Your task to perform on an android device: all mails in gmail Image 0: 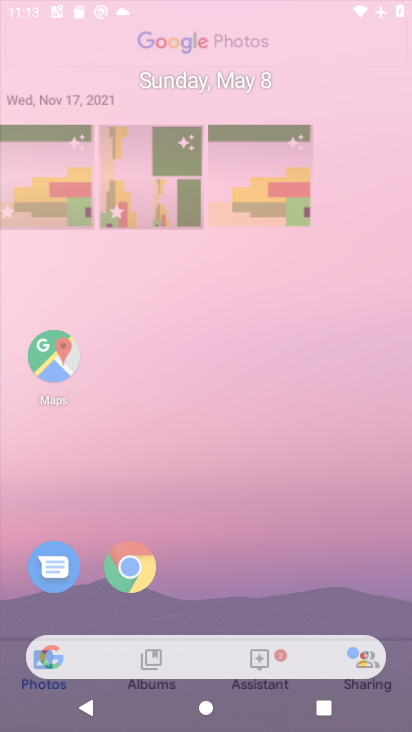
Step 0: click (396, 105)
Your task to perform on an android device: all mails in gmail Image 1: 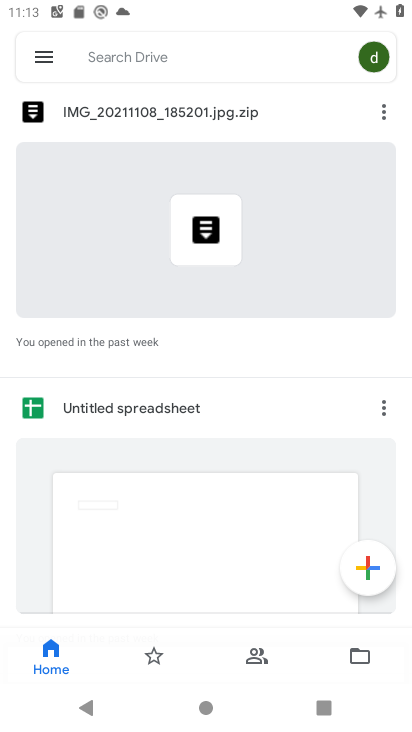
Step 1: press home button
Your task to perform on an android device: all mails in gmail Image 2: 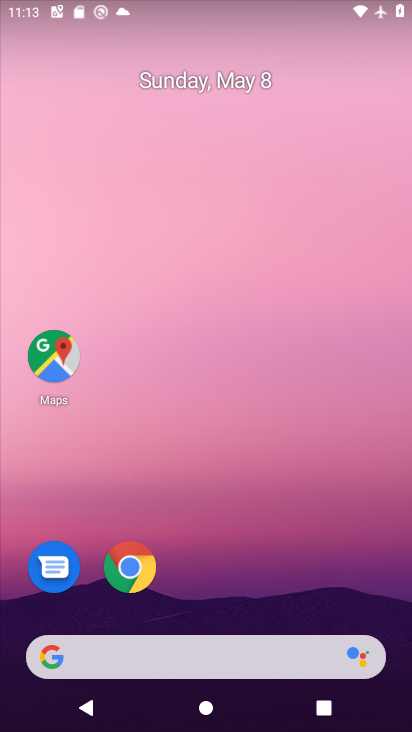
Step 2: drag from (175, 620) to (244, 179)
Your task to perform on an android device: all mails in gmail Image 3: 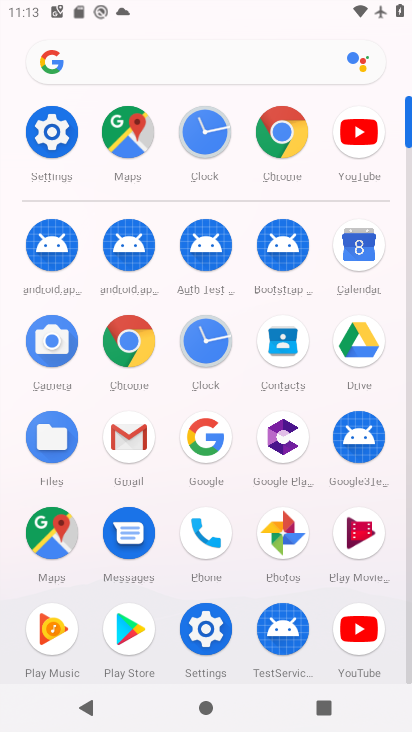
Step 3: click (56, 176)
Your task to perform on an android device: all mails in gmail Image 4: 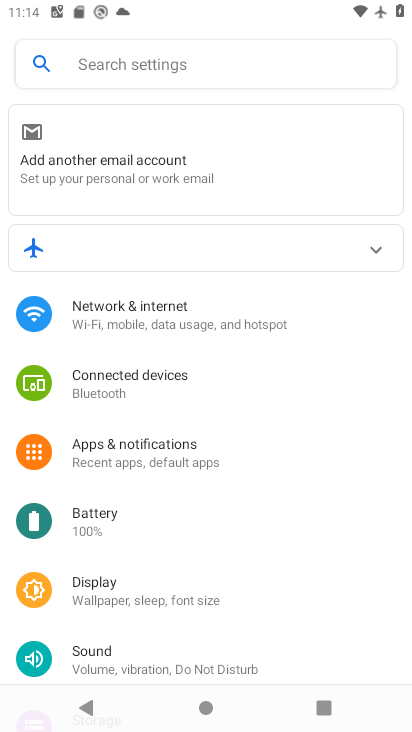
Step 4: press home button
Your task to perform on an android device: all mails in gmail Image 5: 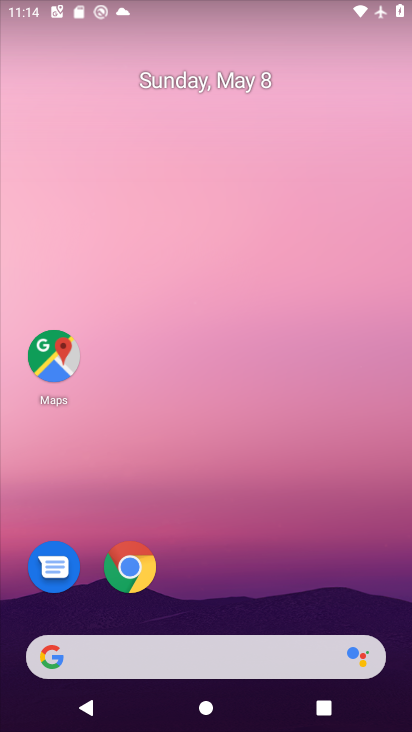
Step 5: drag from (224, 549) to (241, 131)
Your task to perform on an android device: all mails in gmail Image 6: 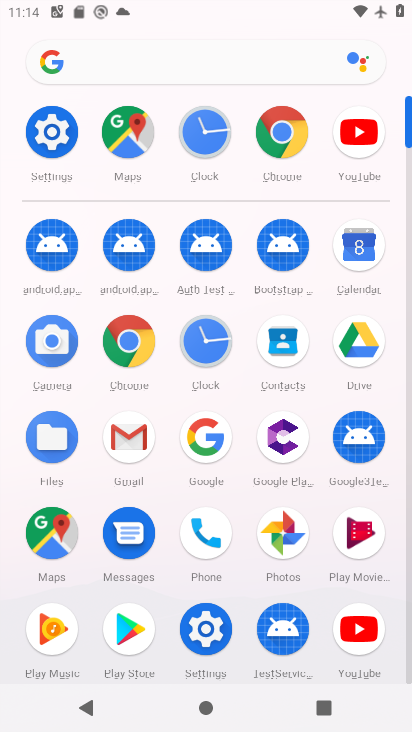
Step 6: click (127, 453)
Your task to perform on an android device: all mails in gmail Image 7: 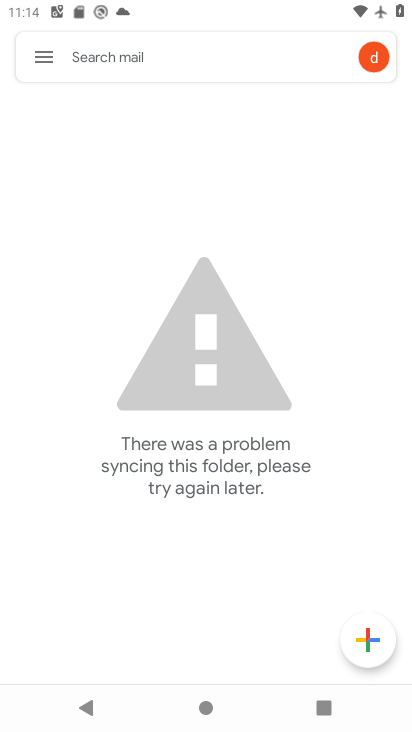
Step 7: click (40, 55)
Your task to perform on an android device: all mails in gmail Image 8: 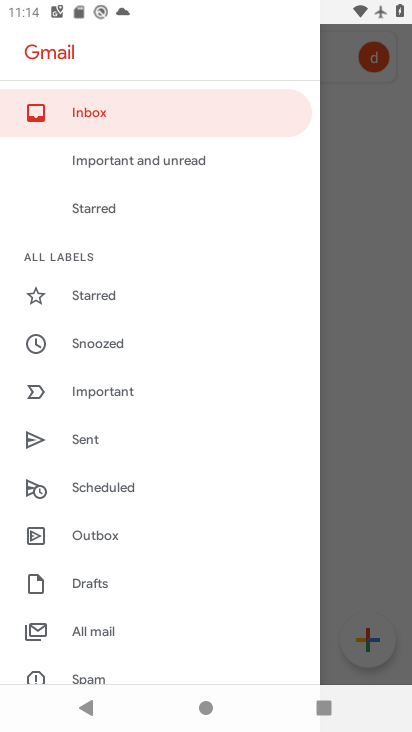
Step 8: click (83, 639)
Your task to perform on an android device: all mails in gmail Image 9: 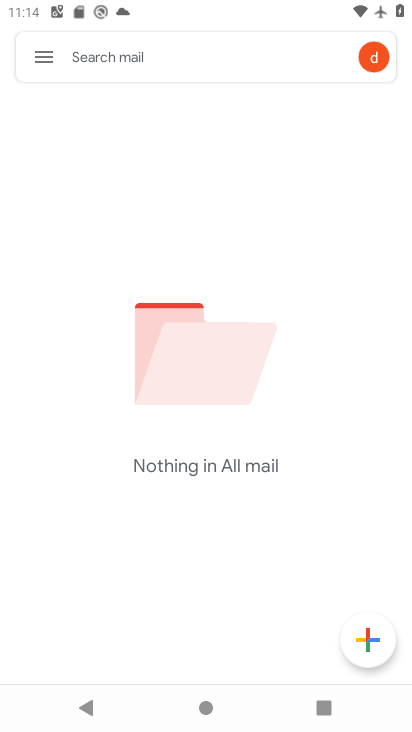
Step 9: task complete